Your task to perform on an android device: Open eBay Image 0: 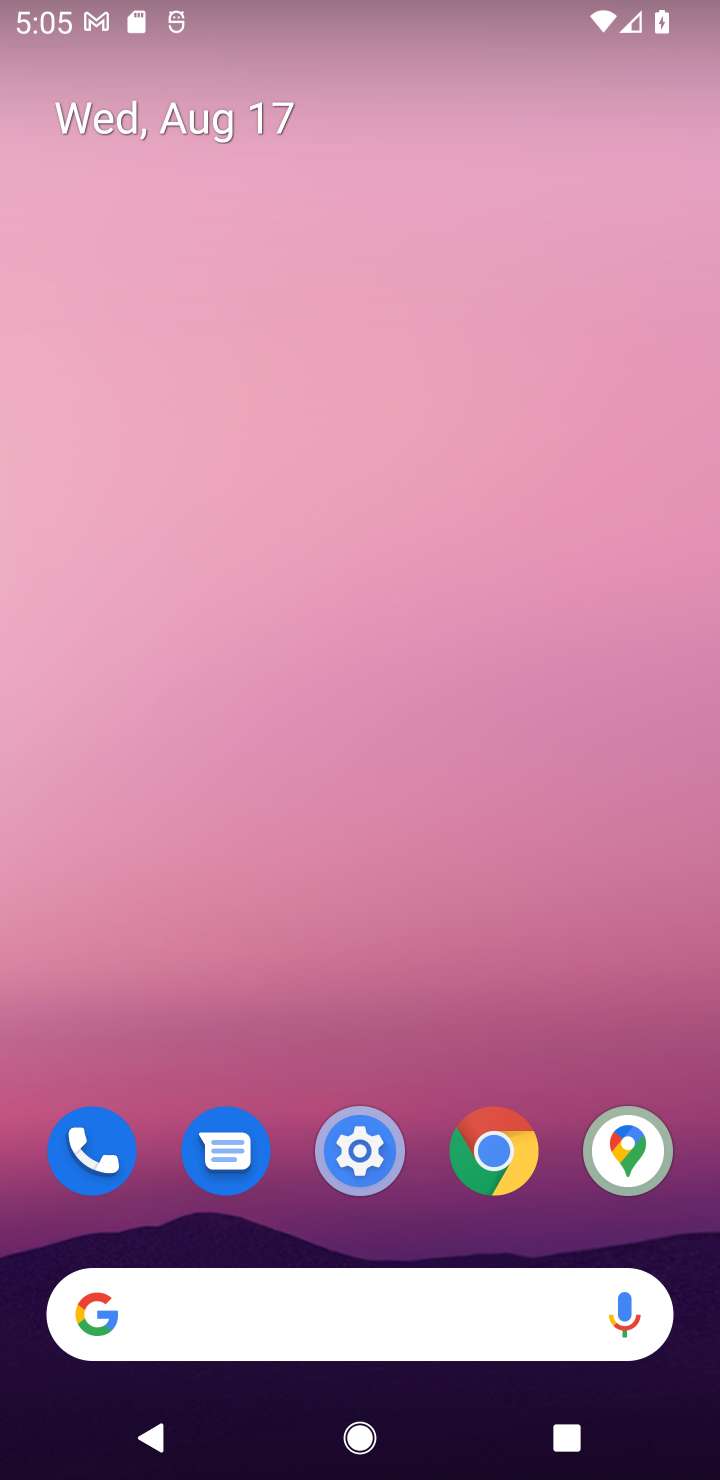
Step 0: click (494, 1153)
Your task to perform on an android device: Open eBay Image 1: 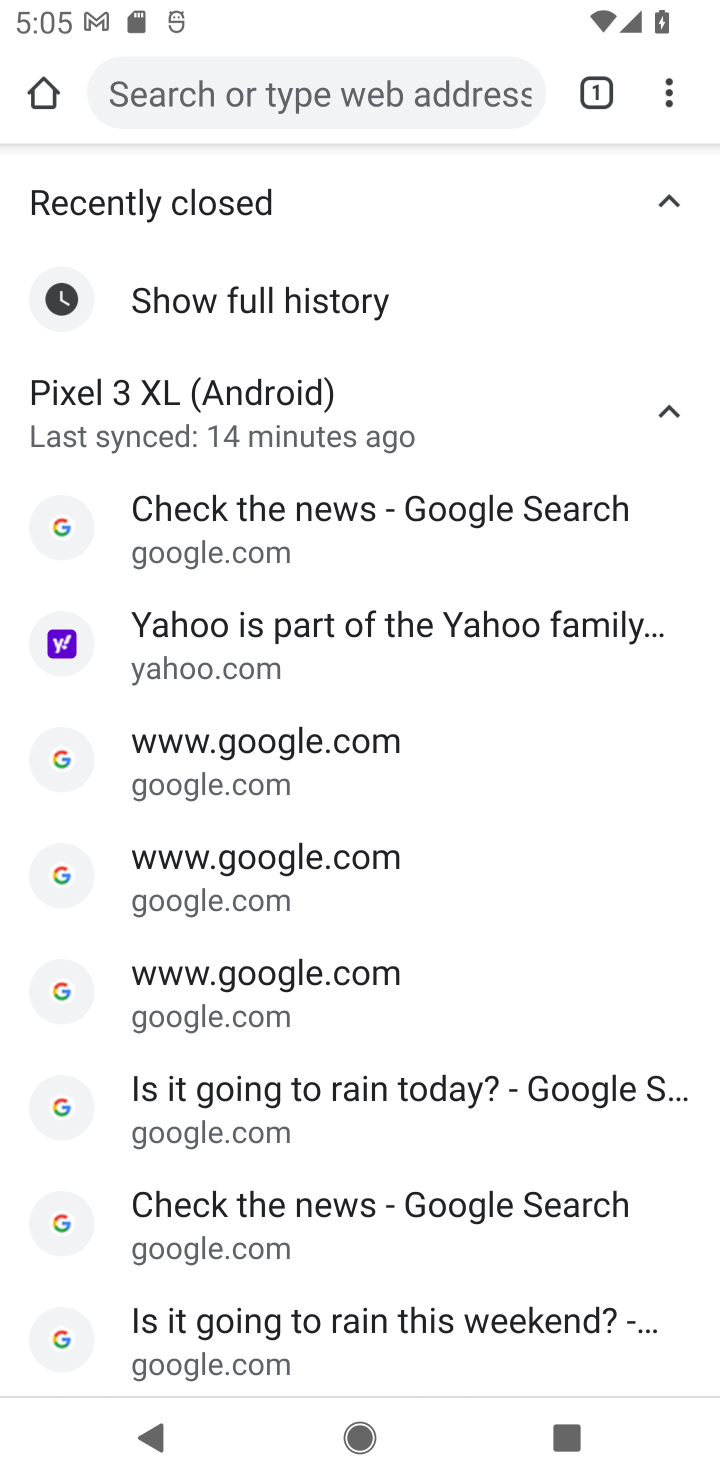
Step 1: click (280, 97)
Your task to perform on an android device: Open eBay Image 2: 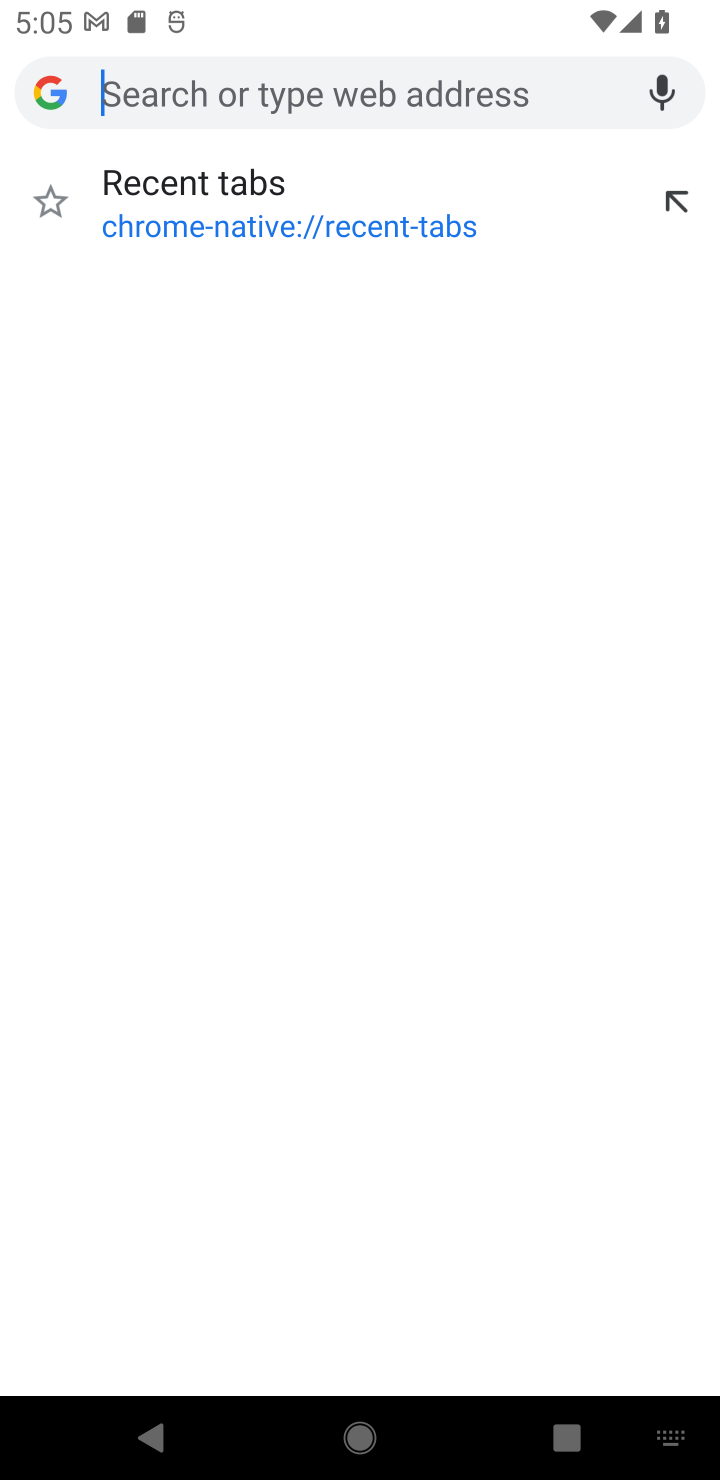
Step 2: type "eBay"
Your task to perform on an android device: Open eBay Image 3: 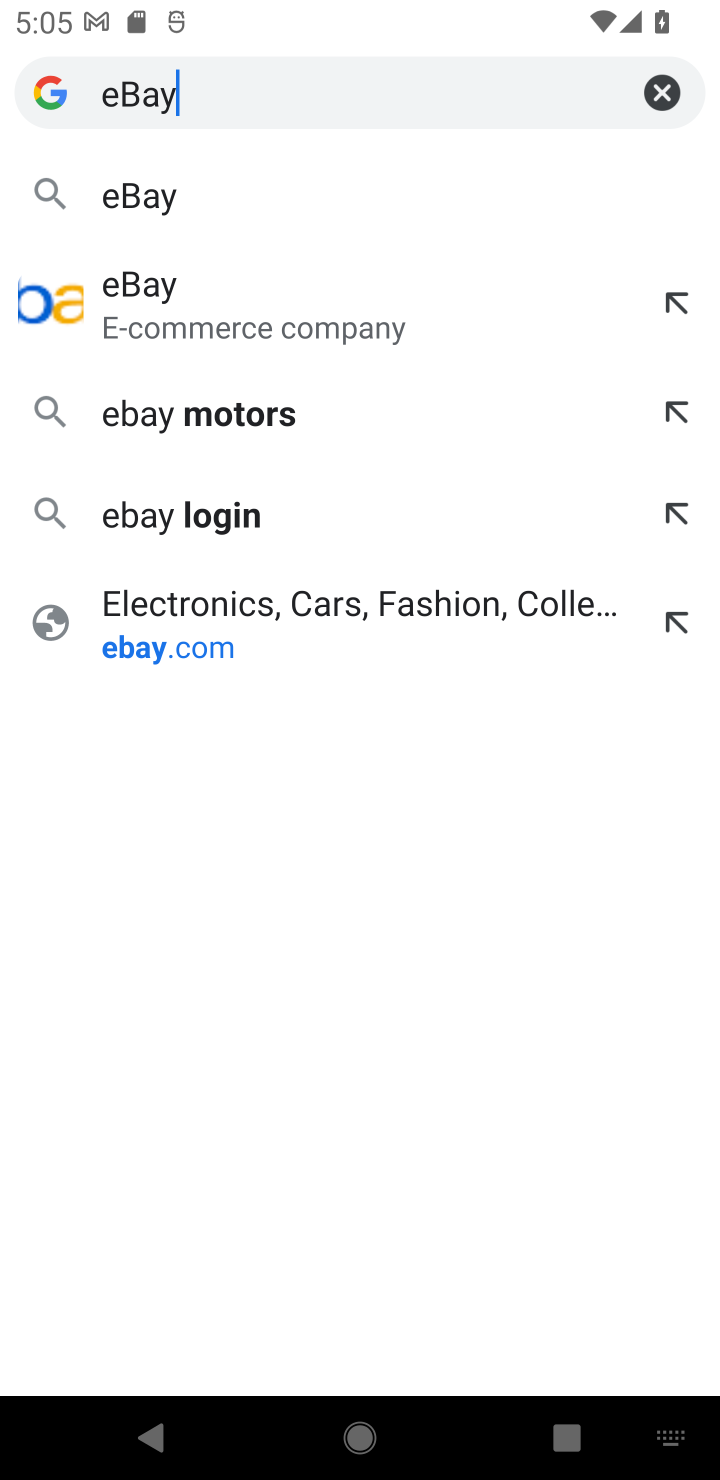
Step 3: click (139, 190)
Your task to perform on an android device: Open eBay Image 4: 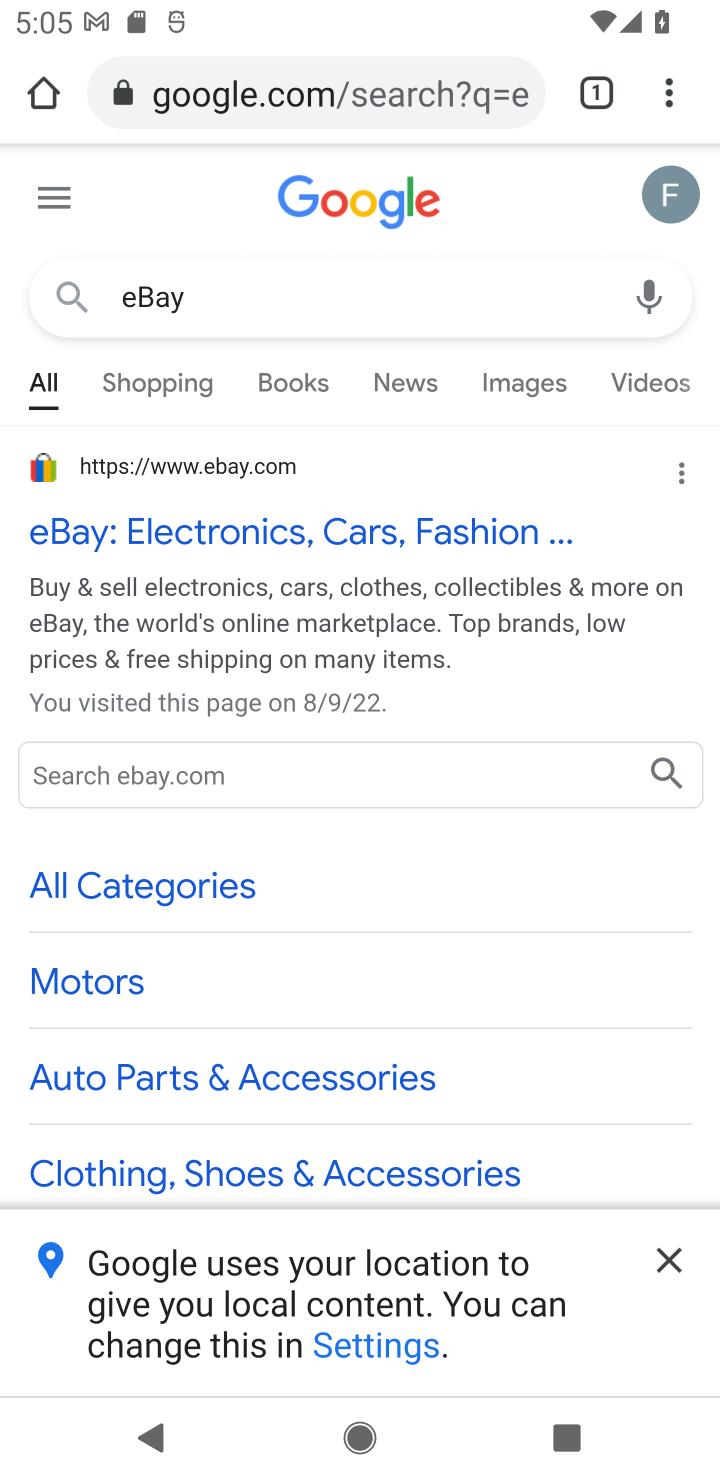
Step 4: click (190, 511)
Your task to perform on an android device: Open eBay Image 5: 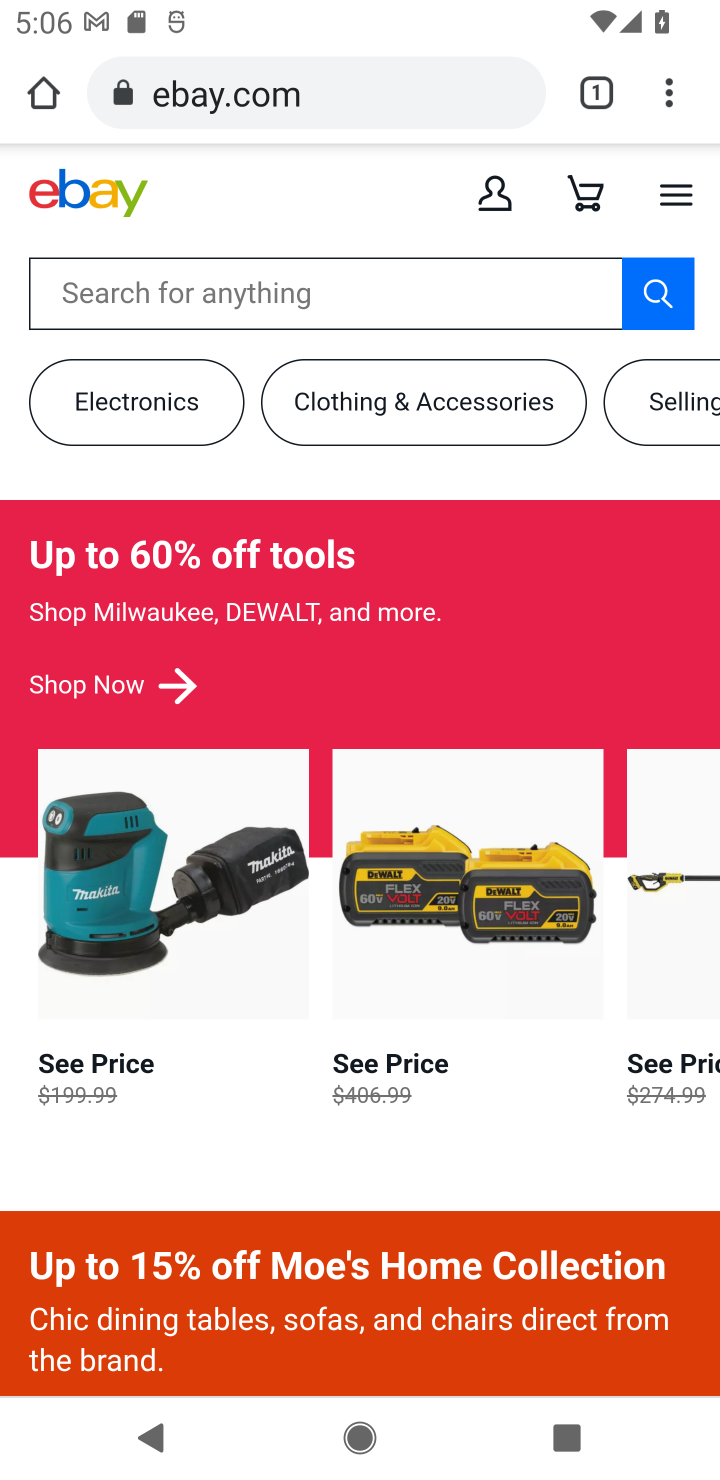
Step 5: drag from (437, 1185) to (427, 416)
Your task to perform on an android device: Open eBay Image 6: 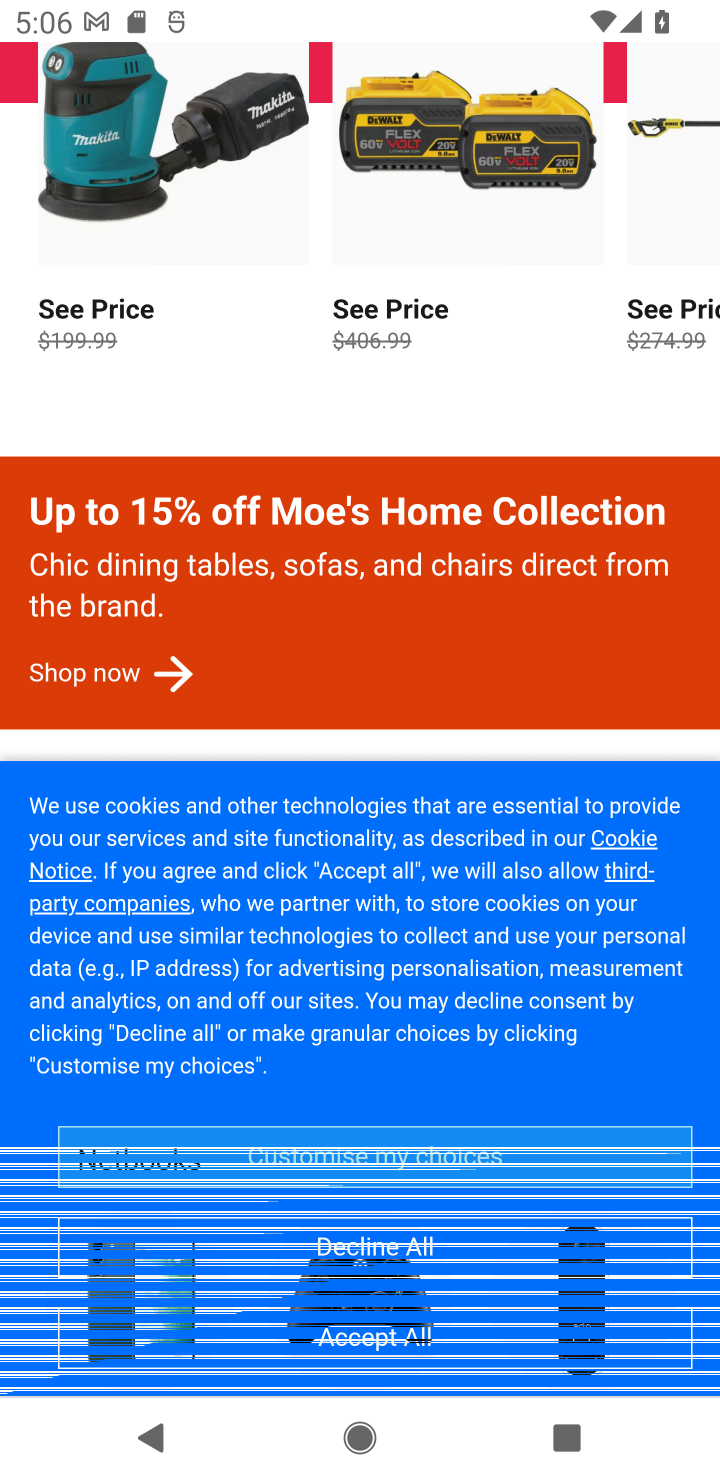
Step 6: click (382, 1339)
Your task to perform on an android device: Open eBay Image 7: 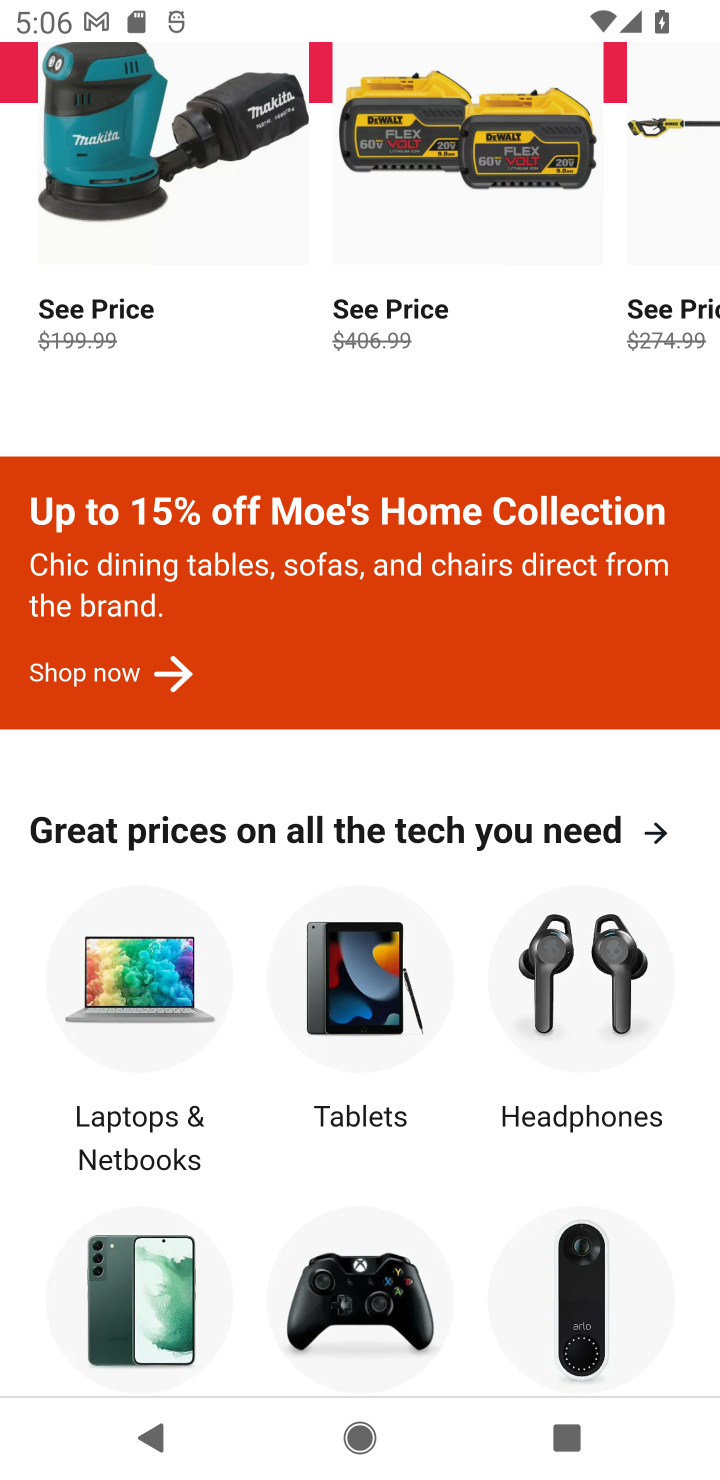
Step 7: task complete